Your task to perform on an android device: What's the weather? Image 0: 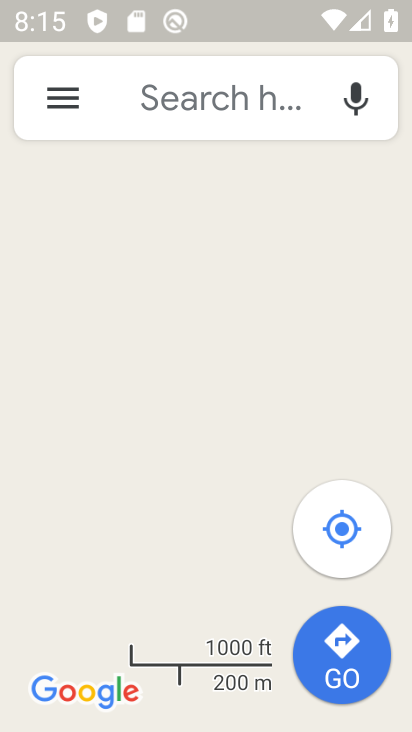
Step 0: press home button
Your task to perform on an android device: What's the weather? Image 1: 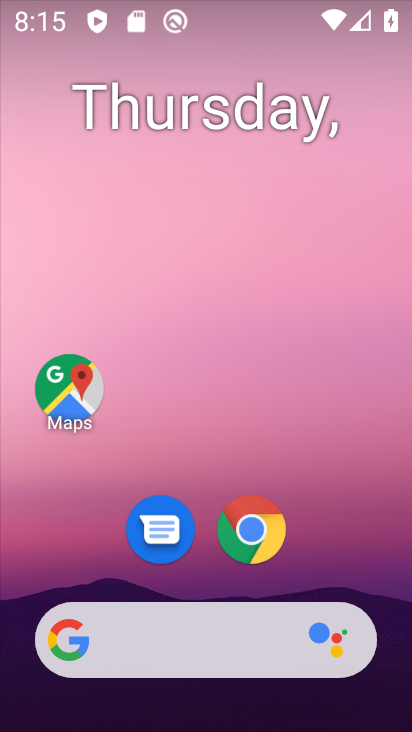
Step 1: click (86, 641)
Your task to perform on an android device: What's the weather? Image 2: 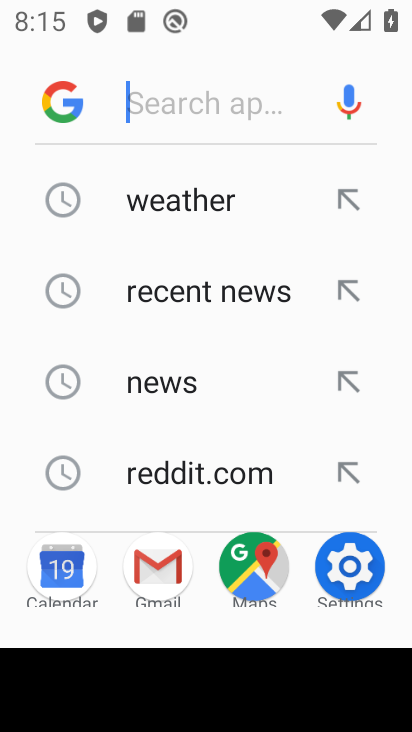
Step 2: click (213, 203)
Your task to perform on an android device: What's the weather? Image 3: 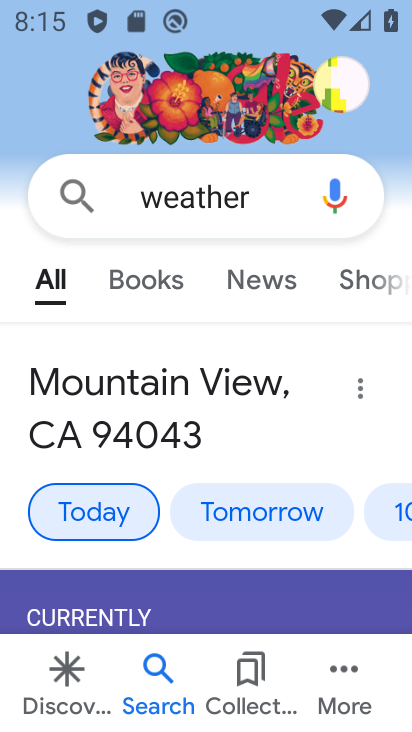
Step 3: task complete